Your task to perform on an android device: What's the weather? Image 0: 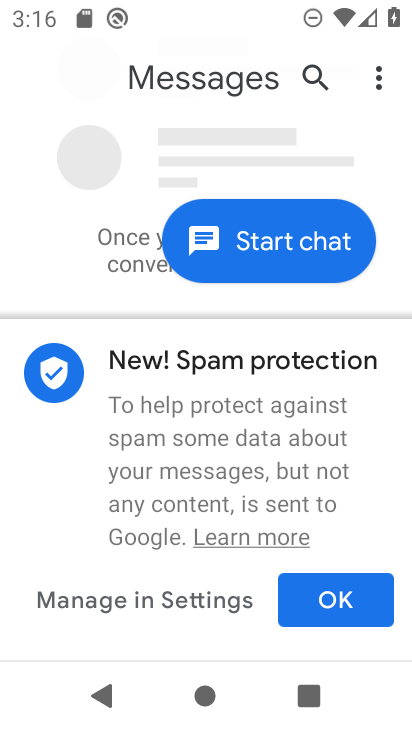
Step 0: press home button
Your task to perform on an android device: What's the weather? Image 1: 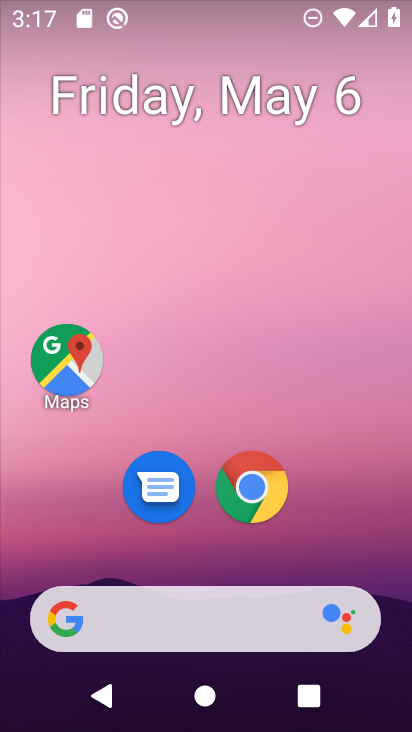
Step 1: drag from (321, 565) to (320, 36)
Your task to perform on an android device: What's the weather? Image 2: 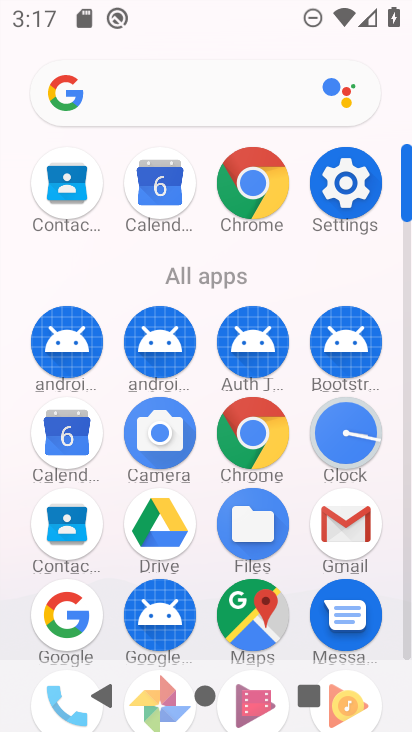
Step 2: click (220, 100)
Your task to perform on an android device: What's the weather? Image 3: 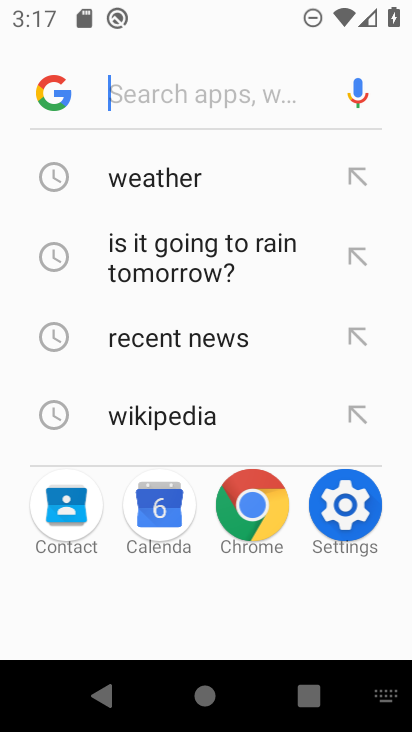
Step 3: type "what's the weather"
Your task to perform on an android device: What's the weather? Image 4: 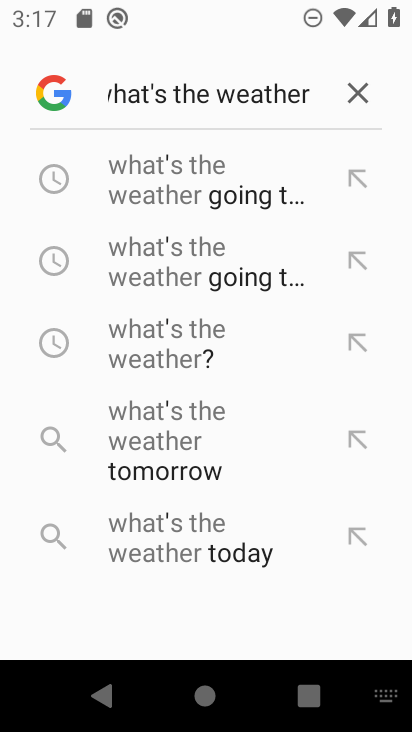
Step 4: click (232, 339)
Your task to perform on an android device: What's the weather? Image 5: 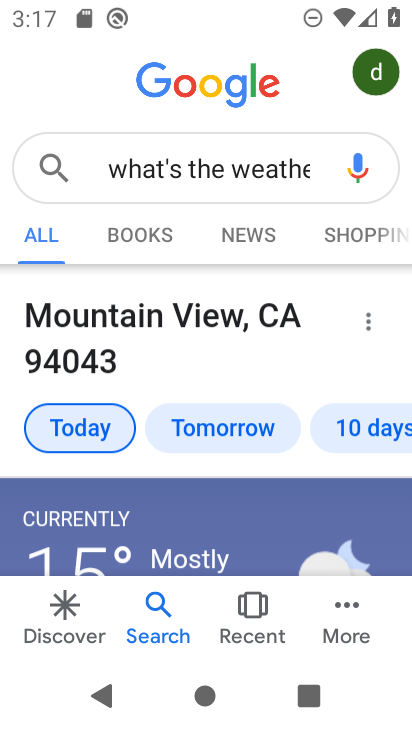
Step 5: task complete